Your task to perform on an android device: change the upload size in google photos Image 0: 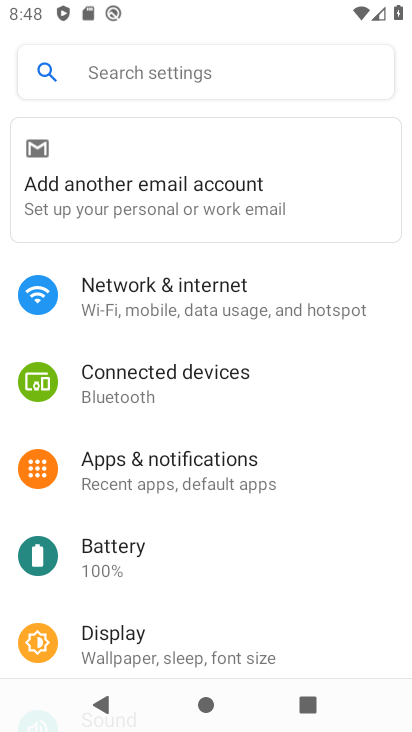
Step 0: press home button
Your task to perform on an android device: change the upload size in google photos Image 1: 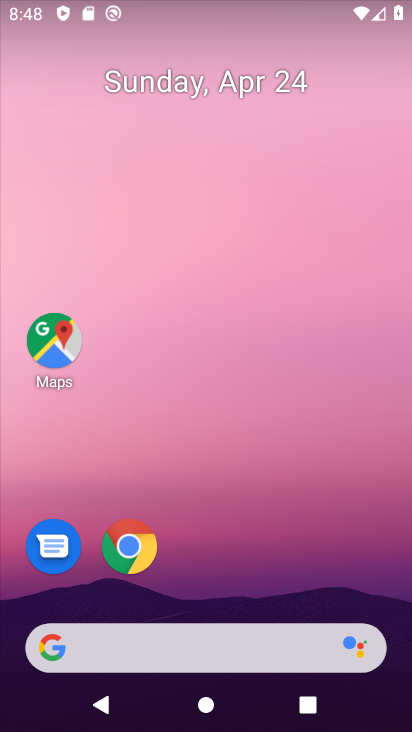
Step 1: drag from (252, 565) to (278, 224)
Your task to perform on an android device: change the upload size in google photos Image 2: 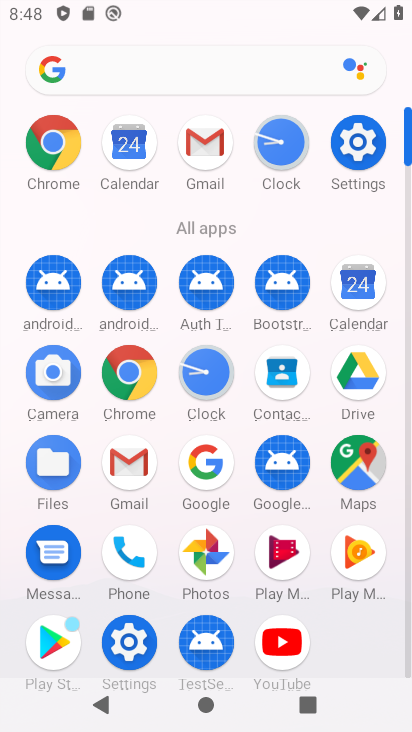
Step 2: click (205, 540)
Your task to perform on an android device: change the upload size in google photos Image 3: 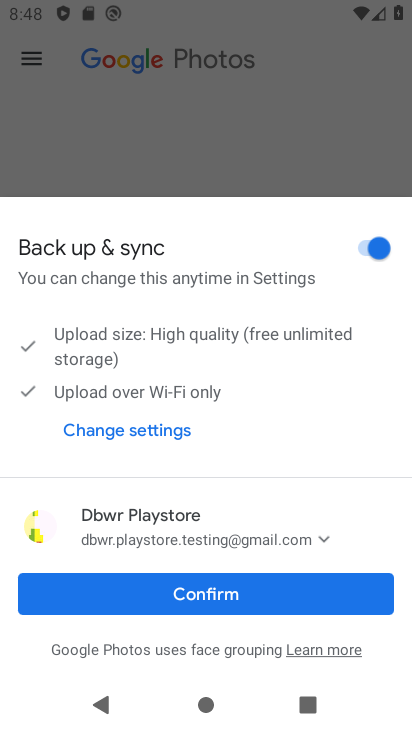
Step 3: click (219, 588)
Your task to perform on an android device: change the upload size in google photos Image 4: 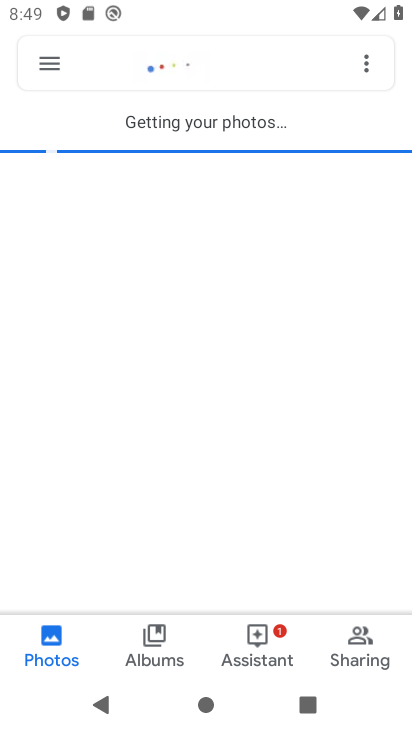
Step 4: click (45, 55)
Your task to perform on an android device: change the upload size in google photos Image 5: 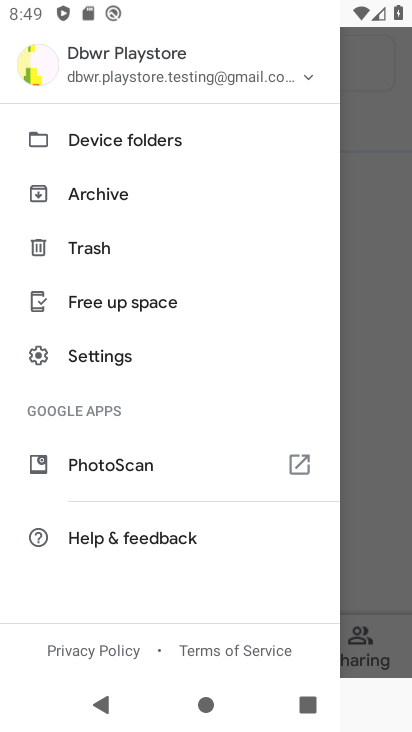
Step 5: click (135, 353)
Your task to perform on an android device: change the upload size in google photos Image 6: 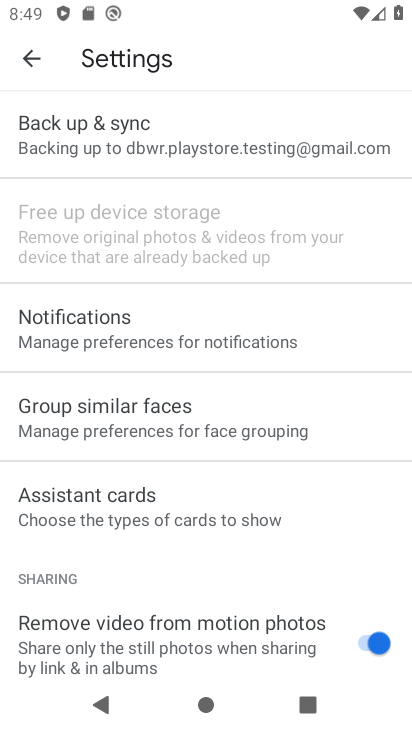
Step 6: click (125, 140)
Your task to perform on an android device: change the upload size in google photos Image 7: 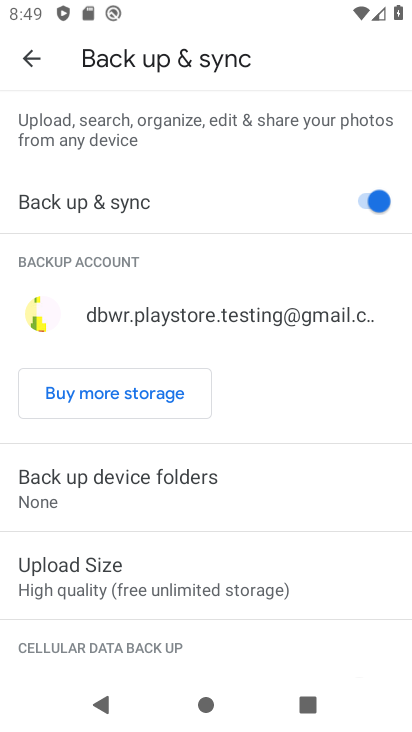
Step 7: click (216, 581)
Your task to perform on an android device: change the upload size in google photos Image 8: 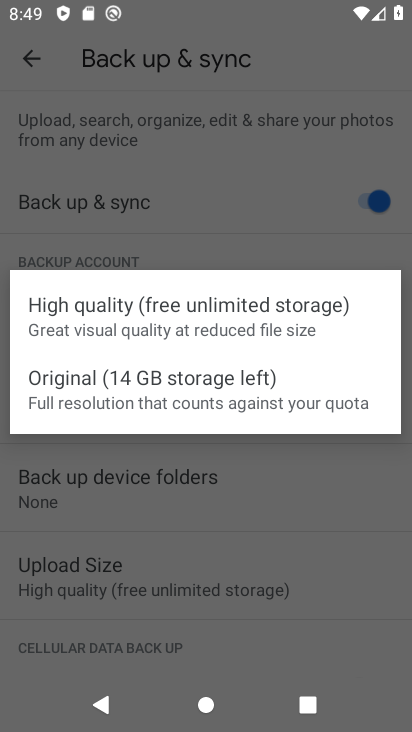
Step 8: click (147, 392)
Your task to perform on an android device: change the upload size in google photos Image 9: 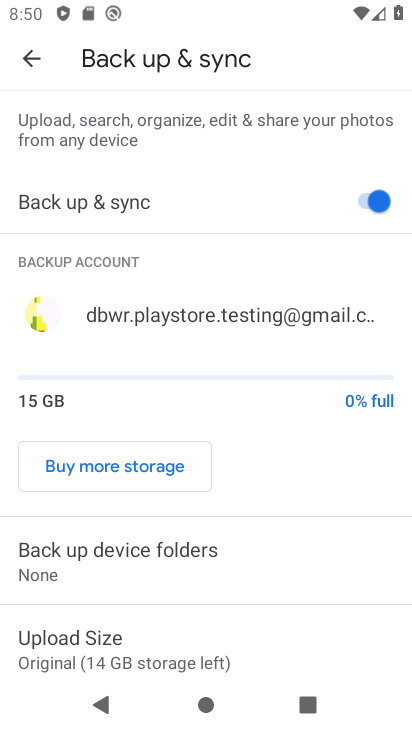
Step 9: task complete